Your task to perform on an android device: turn off location Image 0: 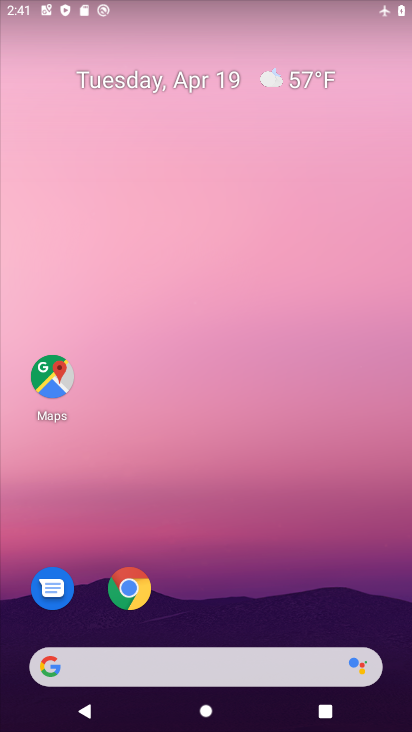
Step 0: drag from (310, 521) to (284, 122)
Your task to perform on an android device: turn off location Image 1: 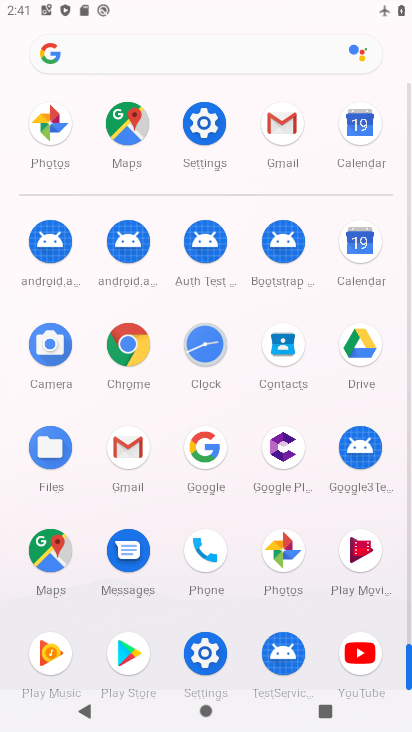
Step 1: click (205, 126)
Your task to perform on an android device: turn off location Image 2: 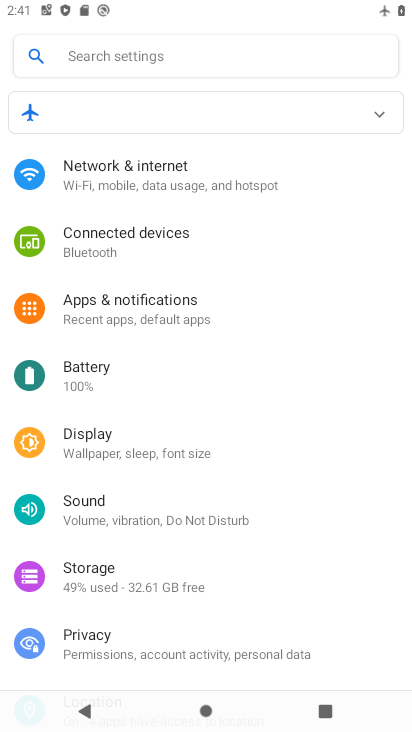
Step 2: drag from (216, 577) to (248, 142)
Your task to perform on an android device: turn off location Image 3: 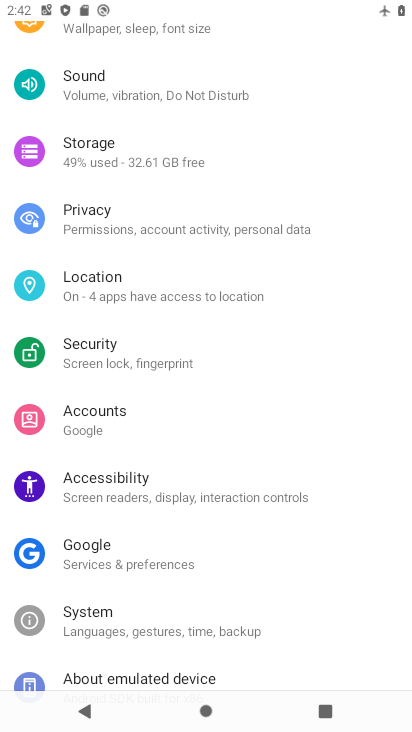
Step 3: click (200, 290)
Your task to perform on an android device: turn off location Image 4: 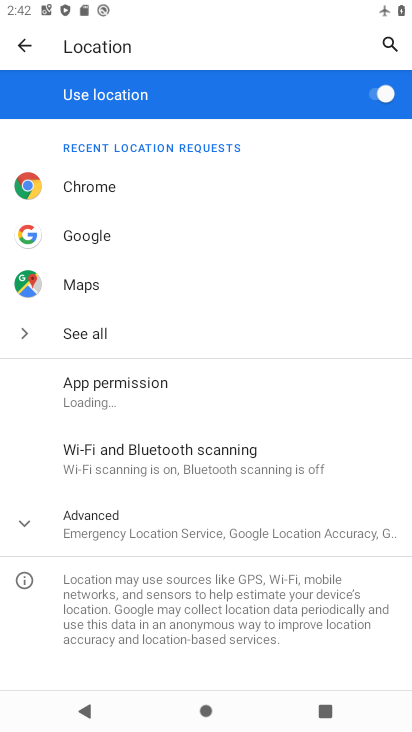
Step 4: click (362, 90)
Your task to perform on an android device: turn off location Image 5: 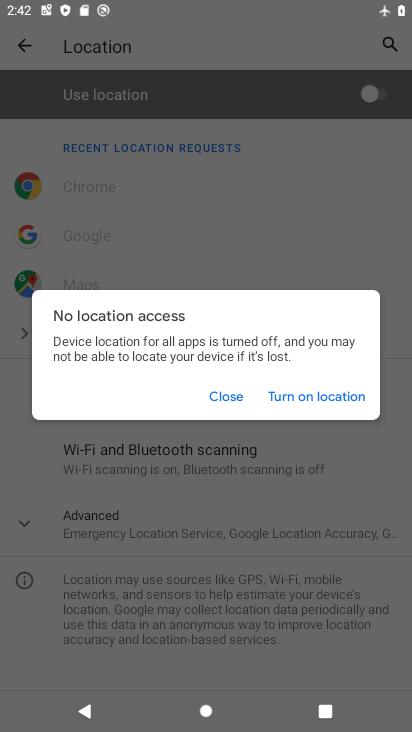
Step 5: click (222, 396)
Your task to perform on an android device: turn off location Image 6: 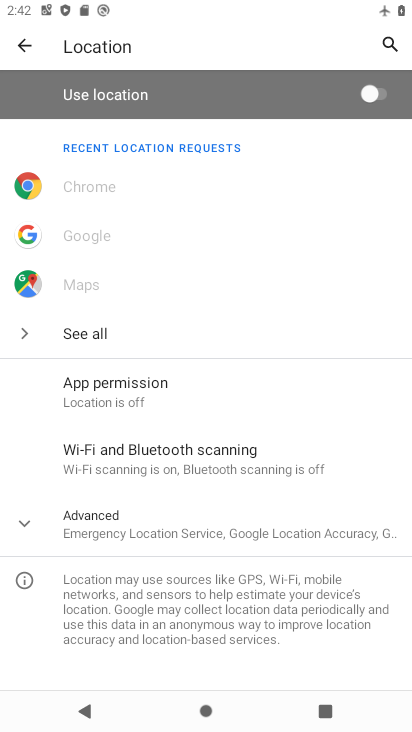
Step 6: task complete